Your task to perform on an android device: change text size in settings app Image 0: 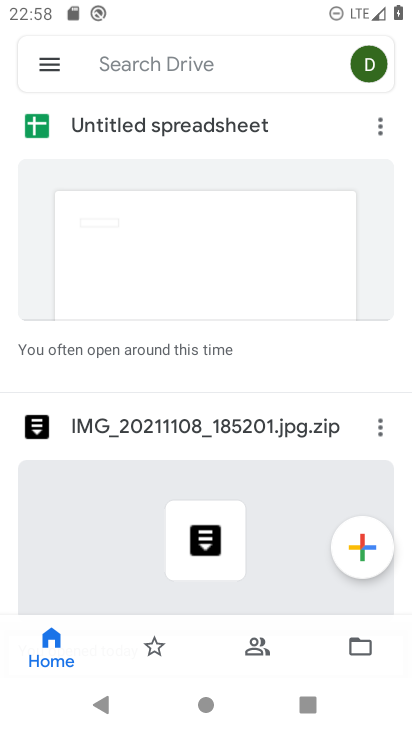
Step 0: press home button
Your task to perform on an android device: change text size in settings app Image 1: 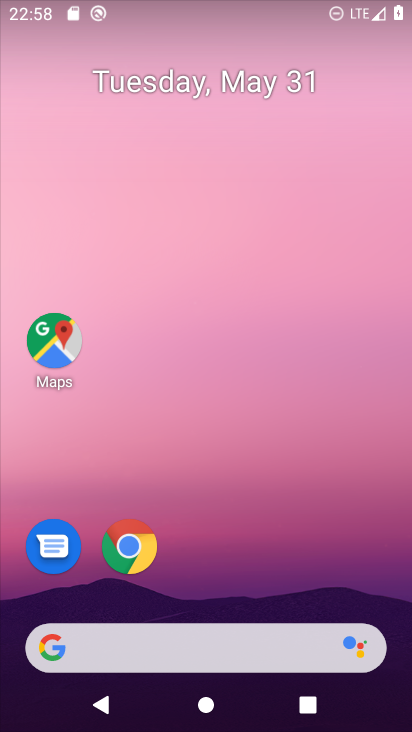
Step 1: drag from (374, 606) to (287, 102)
Your task to perform on an android device: change text size in settings app Image 2: 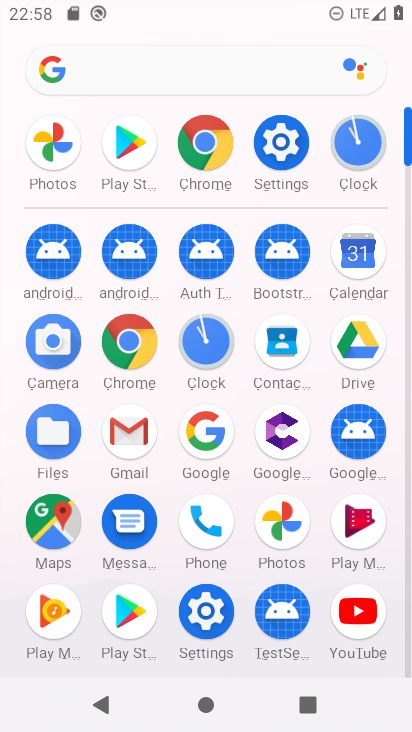
Step 2: click (286, 140)
Your task to perform on an android device: change text size in settings app Image 3: 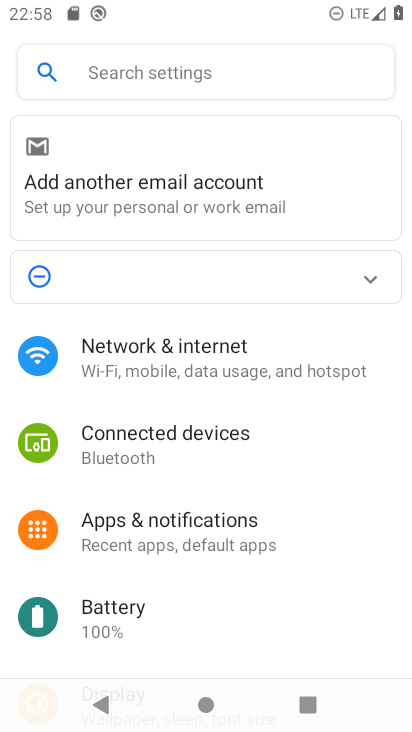
Step 3: drag from (278, 614) to (265, 363)
Your task to perform on an android device: change text size in settings app Image 4: 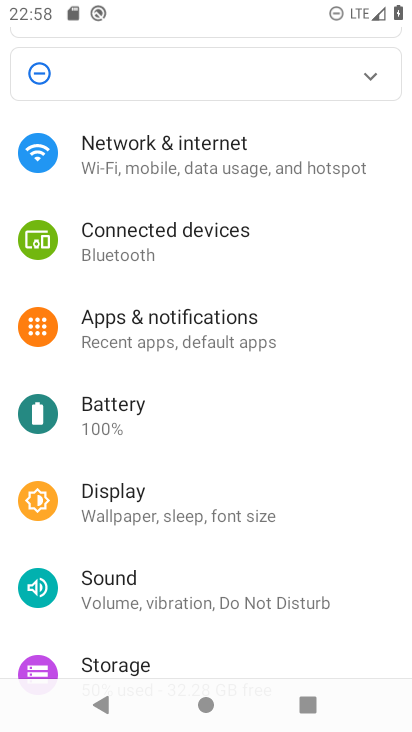
Step 4: click (142, 491)
Your task to perform on an android device: change text size in settings app Image 5: 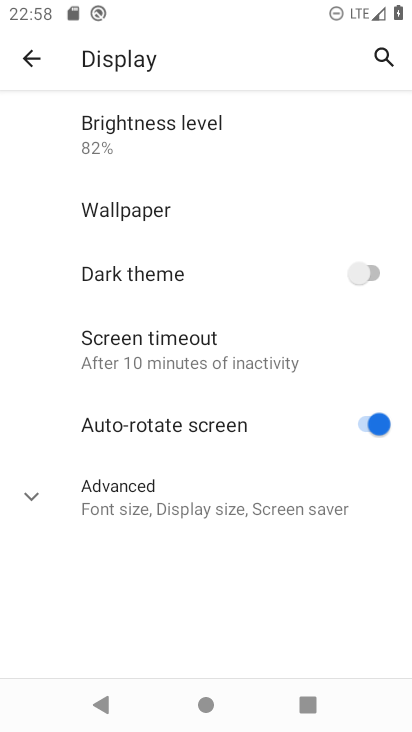
Step 5: click (27, 502)
Your task to perform on an android device: change text size in settings app Image 6: 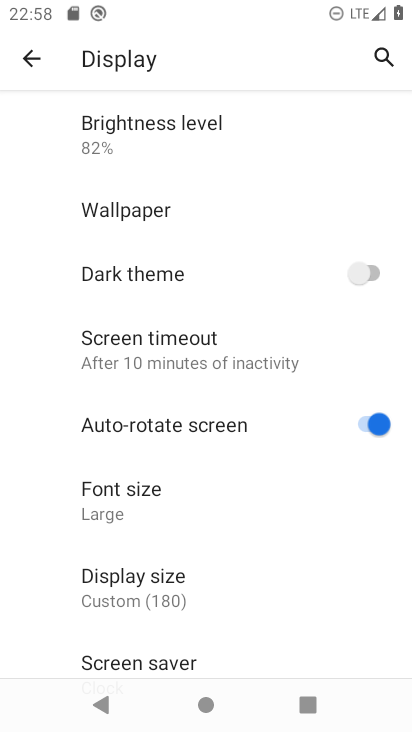
Step 6: click (111, 507)
Your task to perform on an android device: change text size in settings app Image 7: 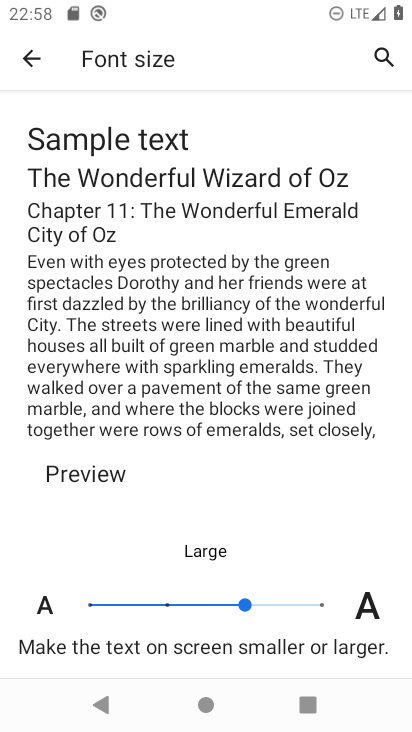
Step 7: click (167, 603)
Your task to perform on an android device: change text size in settings app Image 8: 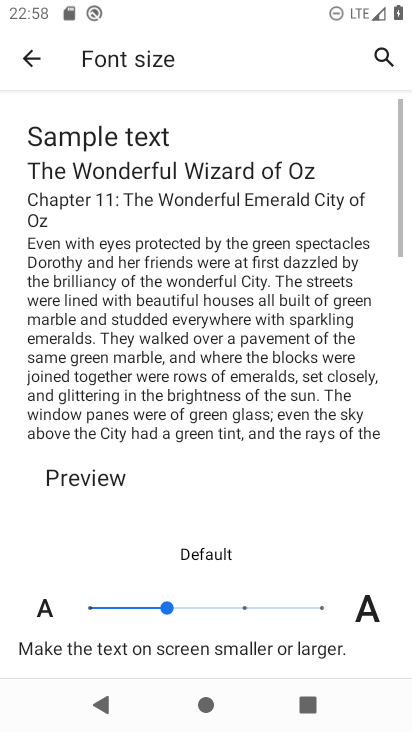
Step 8: task complete